Your task to perform on an android device: turn on sleep mode Image 0: 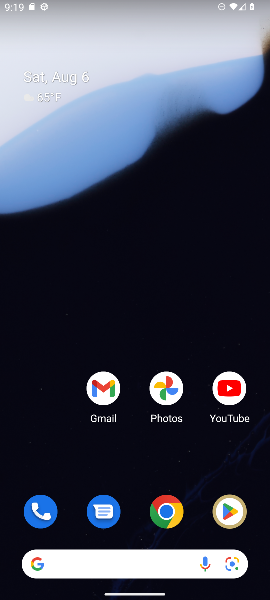
Step 0: press home button
Your task to perform on an android device: turn on sleep mode Image 1: 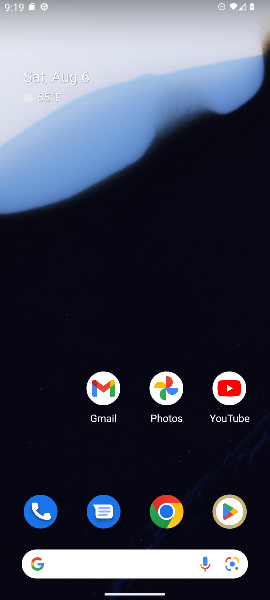
Step 1: drag from (81, 484) to (129, 28)
Your task to perform on an android device: turn on sleep mode Image 2: 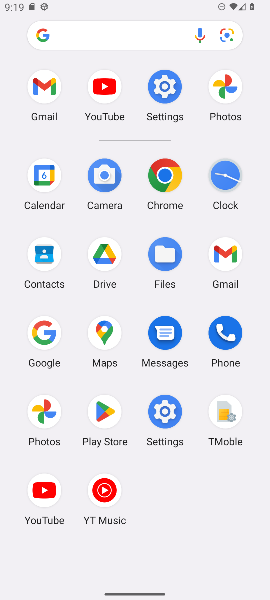
Step 2: click (165, 95)
Your task to perform on an android device: turn on sleep mode Image 3: 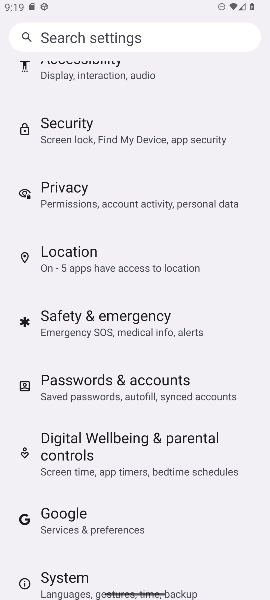
Step 3: drag from (69, 86) to (57, 467)
Your task to perform on an android device: turn on sleep mode Image 4: 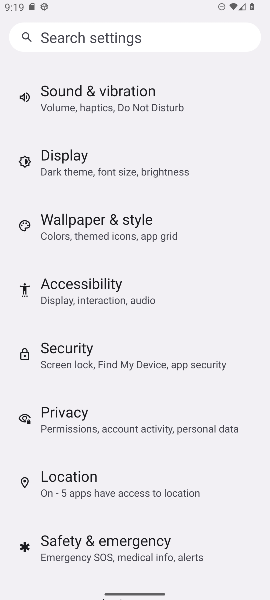
Step 4: click (62, 168)
Your task to perform on an android device: turn on sleep mode Image 5: 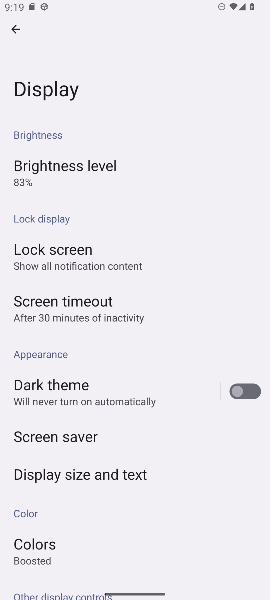
Step 5: task complete